Your task to perform on an android device: Search for a small bookcase on Ikea.com Image 0: 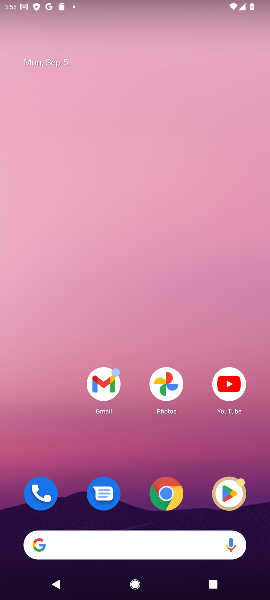
Step 0: drag from (190, 451) to (111, 5)
Your task to perform on an android device: Search for a small bookcase on Ikea.com Image 1: 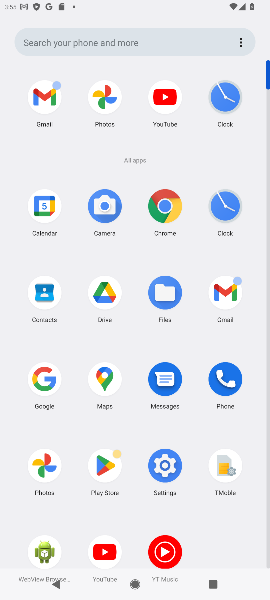
Step 1: click (160, 202)
Your task to perform on an android device: Search for a small bookcase on Ikea.com Image 2: 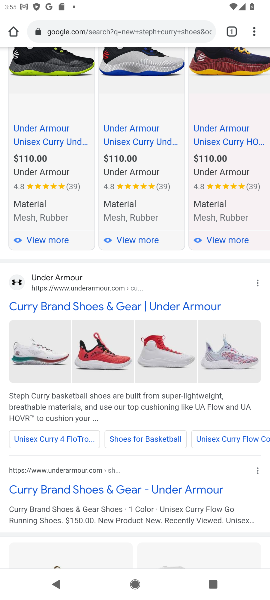
Step 2: click (109, 27)
Your task to perform on an android device: Search for a small bookcase on Ikea.com Image 3: 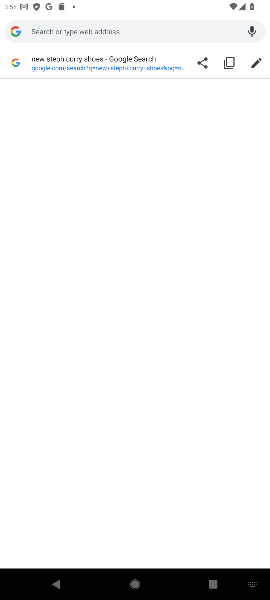
Step 3: type " Ikea.com"
Your task to perform on an android device: Search for a small bookcase on Ikea.com Image 4: 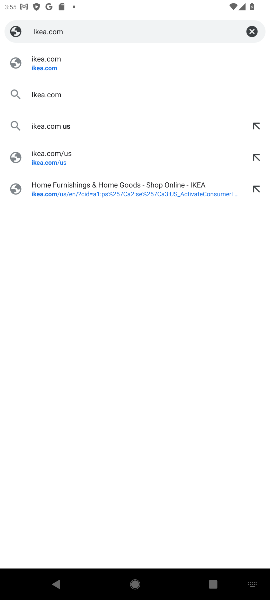
Step 4: click (60, 77)
Your task to perform on an android device: Search for a small bookcase on Ikea.com Image 5: 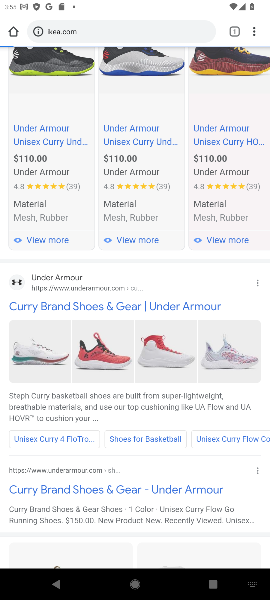
Step 5: click (46, 65)
Your task to perform on an android device: Search for a small bookcase on Ikea.com Image 6: 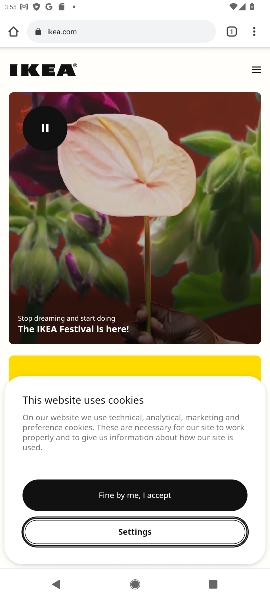
Step 6: drag from (172, 323) to (159, 135)
Your task to perform on an android device: Search for a small bookcase on Ikea.com Image 7: 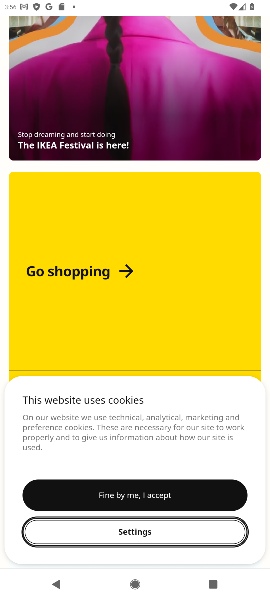
Step 7: drag from (157, 121) to (231, 414)
Your task to perform on an android device: Search for a small bookcase on Ikea.com Image 8: 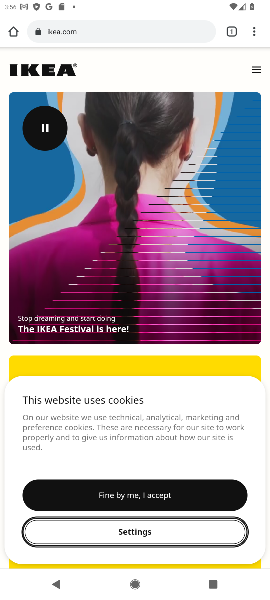
Step 8: click (251, 67)
Your task to perform on an android device: Search for a small bookcase on Ikea.com Image 9: 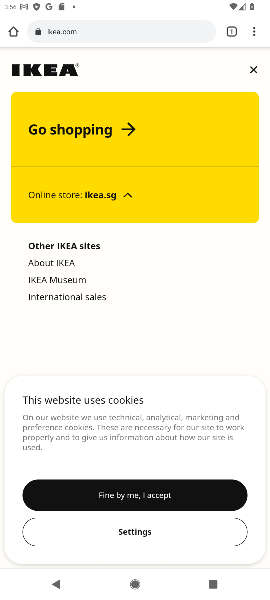
Step 9: task complete